Your task to perform on an android device: Open Chrome and go to settings Image 0: 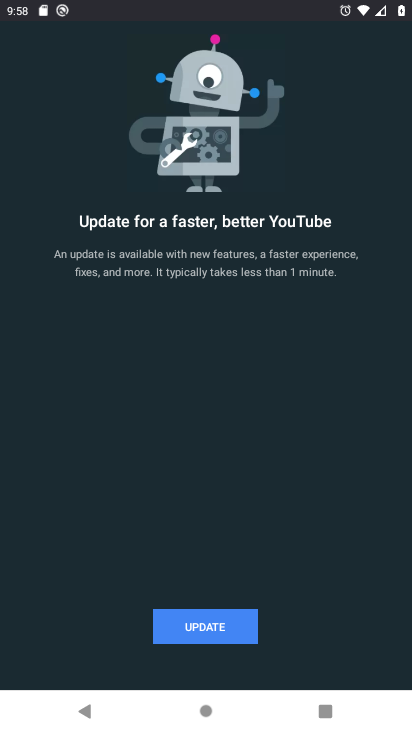
Step 0: click (222, 611)
Your task to perform on an android device: Open Chrome and go to settings Image 1: 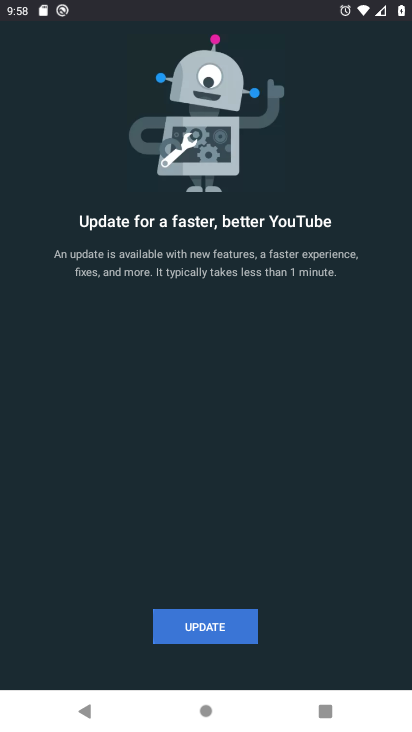
Step 1: click (214, 623)
Your task to perform on an android device: Open Chrome and go to settings Image 2: 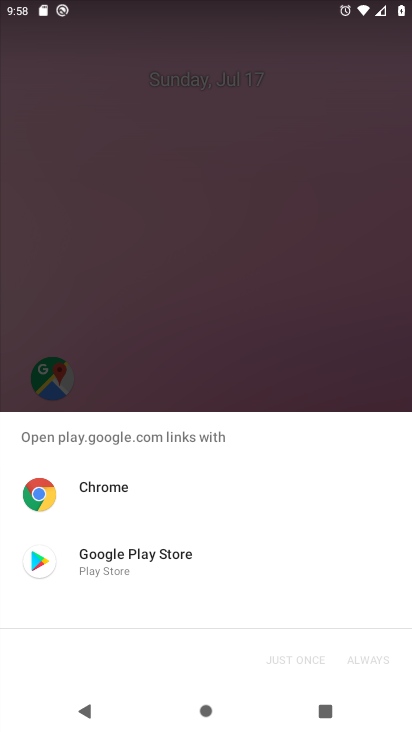
Step 2: click (103, 487)
Your task to perform on an android device: Open Chrome and go to settings Image 3: 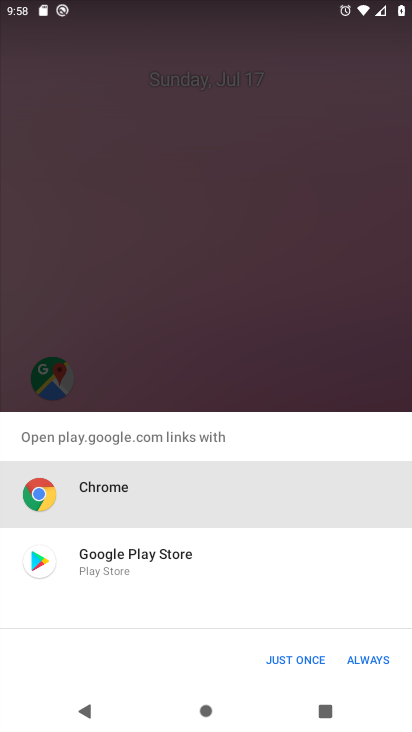
Step 3: click (144, 244)
Your task to perform on an android device: Open Chrome and go to settings Image 4: 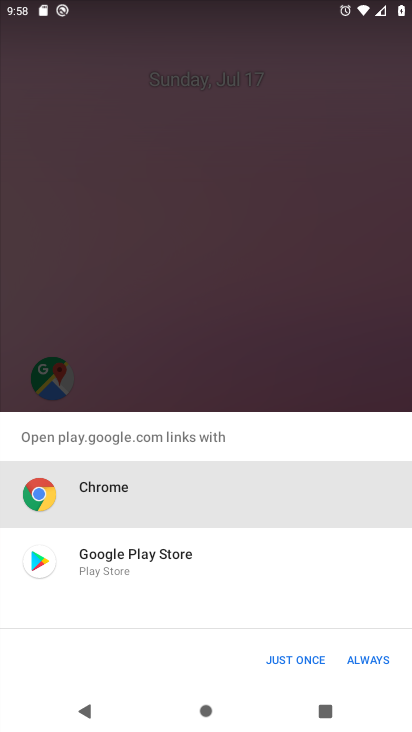
Step 4: click (144, 244)
Your task to perform on an android device: Open Chrome and go to settings Image 5: 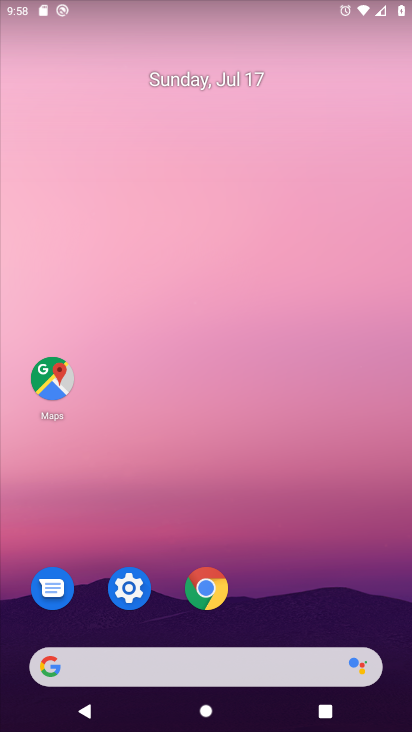
Step 5: click (145, 244)
Your task to perform on an android device: Open Chrome and go to settings Image 6: 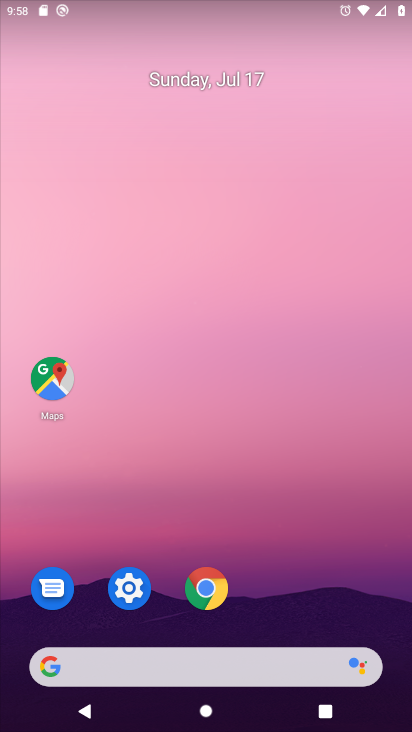
Step 6: drag from (221, 643) to (183, 123)
Your task to perform on an android device: Open Chrome and go to settings Image 7: 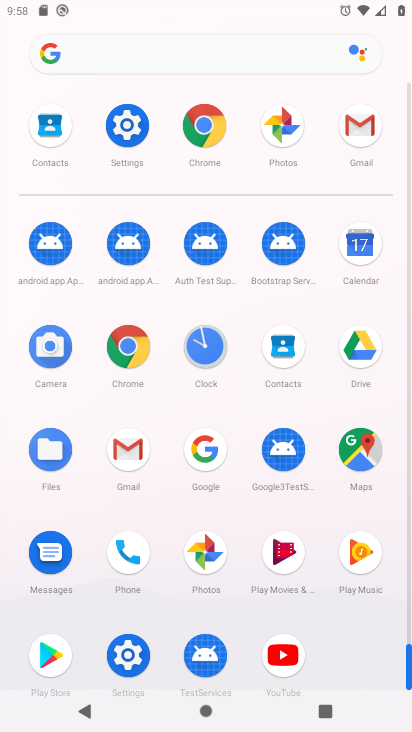
Step 7: click (349, 252)
Your task to perform on an android device: Open Chrome and go to settings Image 8: 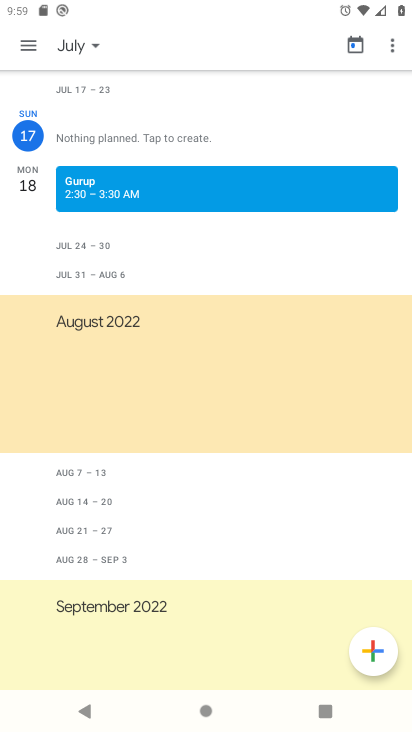
Step 8: press back button
Your task to perform on an android device: Open Chrome and go to settings Image 9: 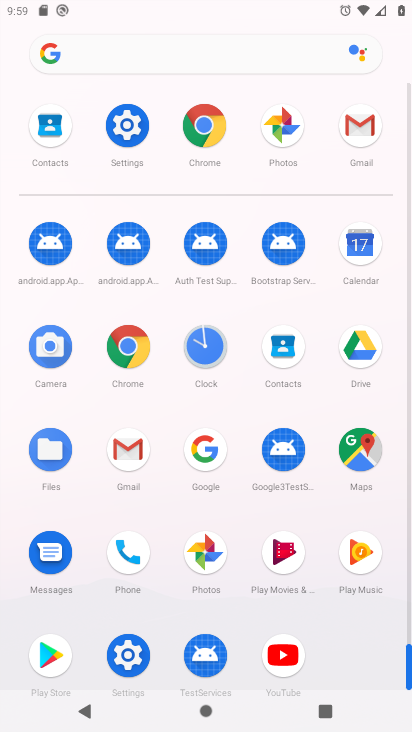
Step 9: press back button
Your task to perform on an android device: Open Chrome and go to settings Image 10: 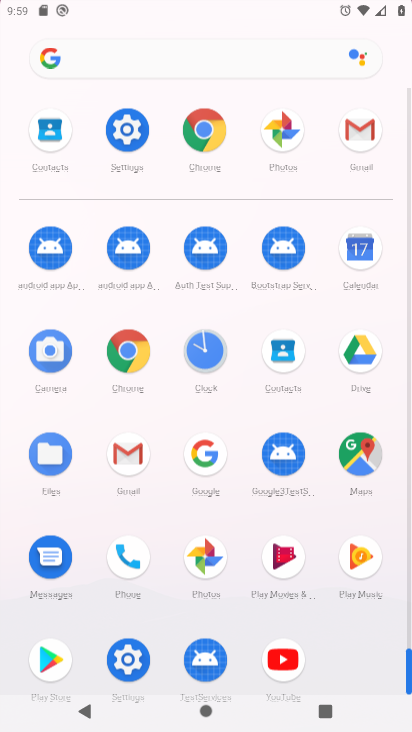
Step 10: press back button
Your task to perform on an android device: Open Chrome and go to settings Image 11: 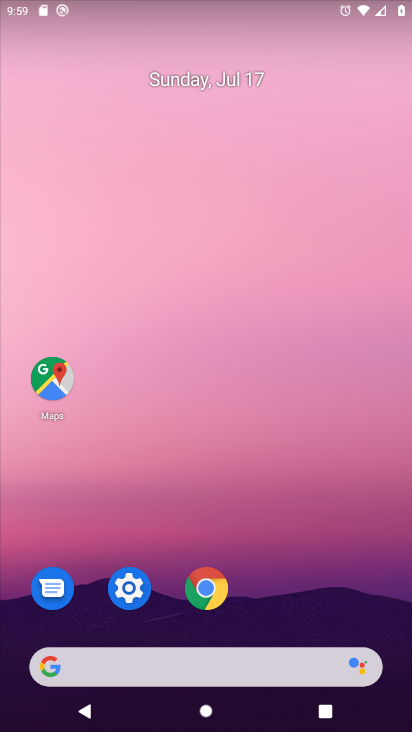
Step 11: drag from (256, 561) to (209, 95)
Your task to perform on an android device: Open Chrome and go to settings Image 12: 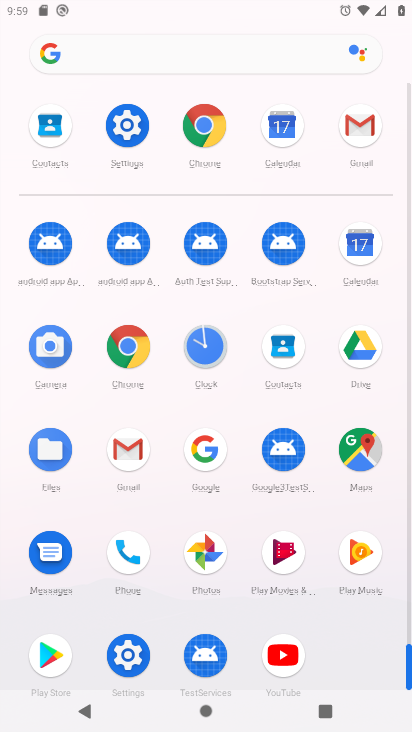
Step 12: drag from (190, 572) to (127, 54)
Your task to perform on an android device: Open Chrome and go to settings Image 13: 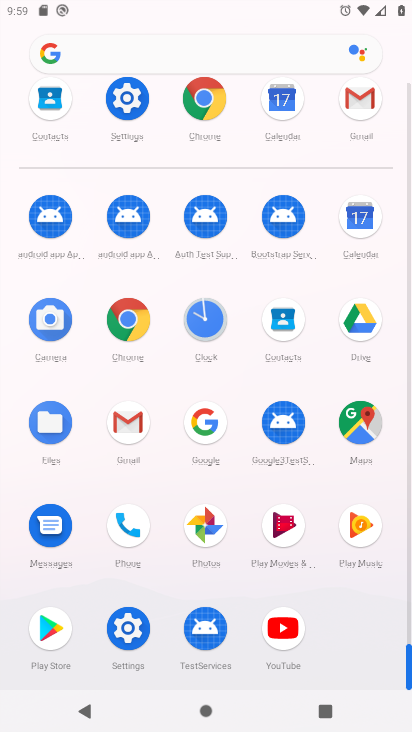
Step 13: drag from (91, 630) to (137, 645)
Your task to perform on an android device: Open Chrome and go to settings Image 14: 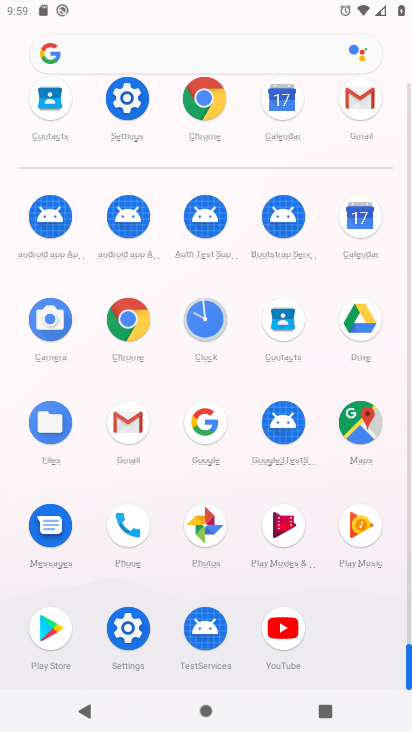
Step 14: click (139, 632)
Your task to perform on an android device: Open Chrome and go to settings Image 15: 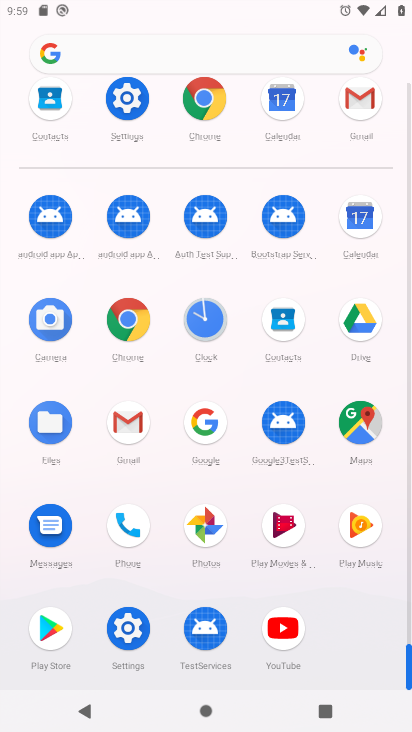
Step 15: click (138, 632)
Your task to perform on an android device: Open Chrome and go to settings Image 16: 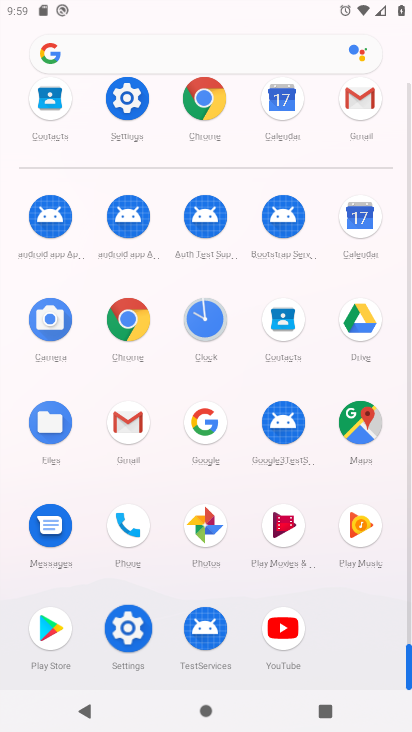
Step 16: click (138, 632)
Your task to perform on an android device: Open Chrome and go to settings Image 17: 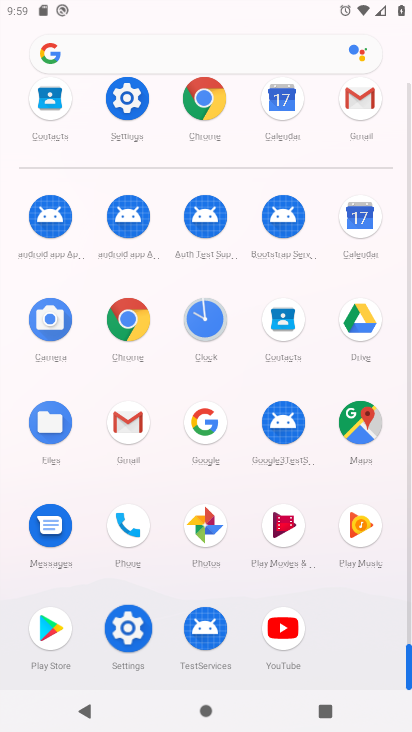
Step 17: click (139, 628)
Your task to perform on an android device: Open Chrome and go to settings Image 18: 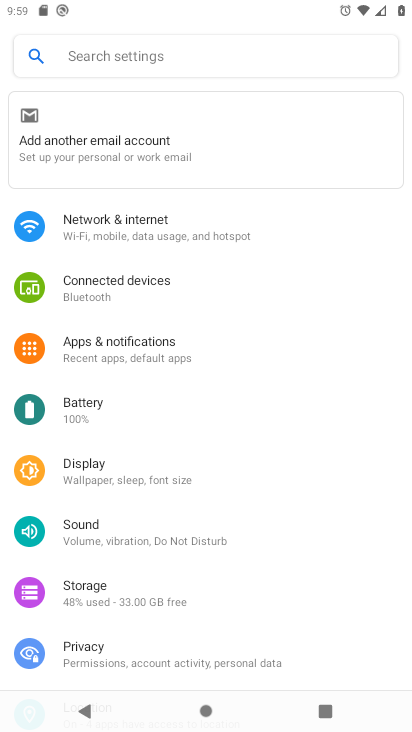
Step 18: press back button
Your task to perform on an android device: Open Chrome and go to settings Image 19: 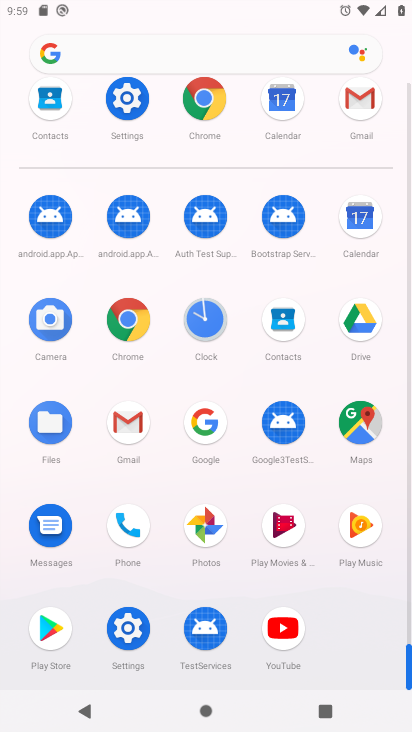
Step 19: click (121, 330)
Your task to perform on an android device: Open Chrome and go to settings Image 20: 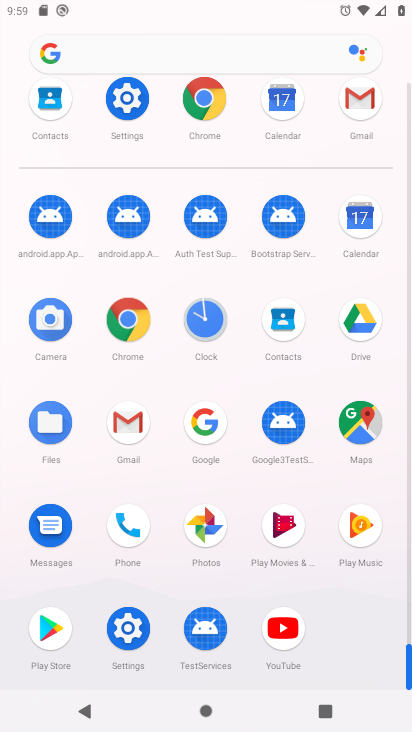
Step 20: click (120, 330)
Your task to perform on an android device: Open Chrome and go to settings Image 21: 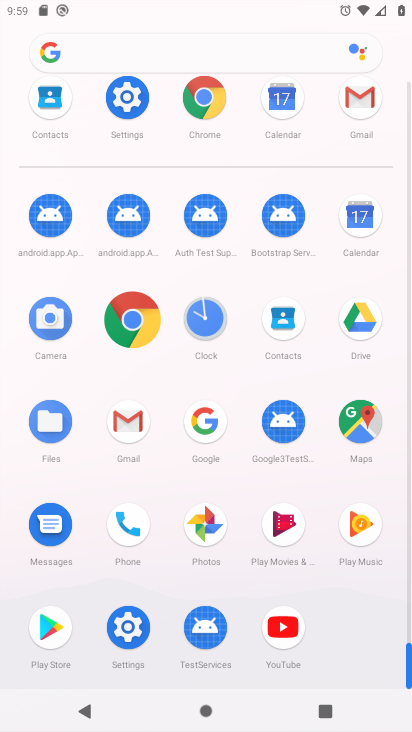
Step 21: click (119, 331)
Your task to perform on an android device: Open Chrome and go to settings Image 22: 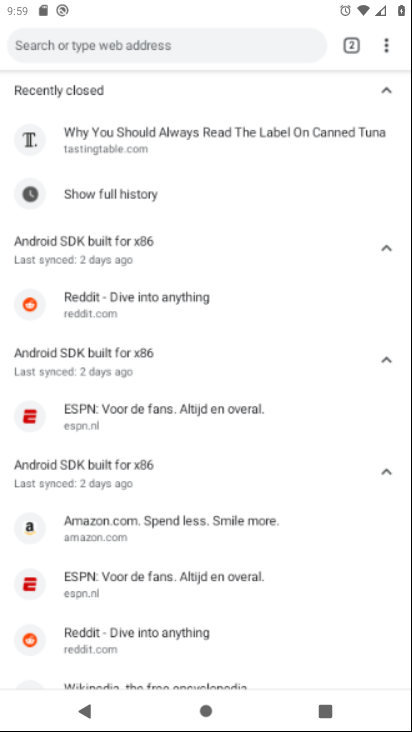
Step 22: click (130, 308)
Your task to perform on an android device: Open Chrome and go to settings Image 23: 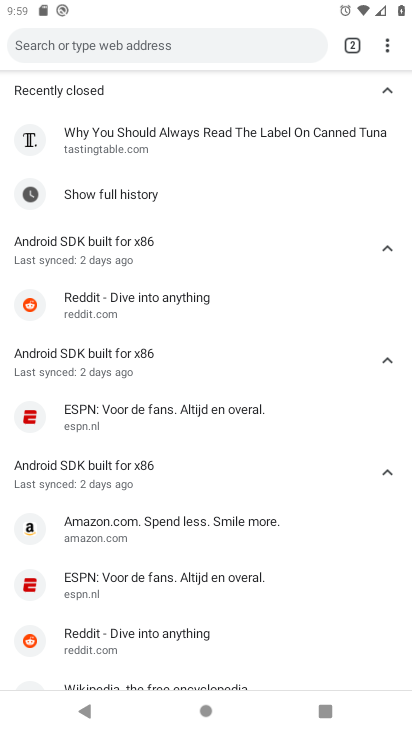
Step 23: press back button
Your task to perform on an android device: Open Chrome and go to settings Image 24: 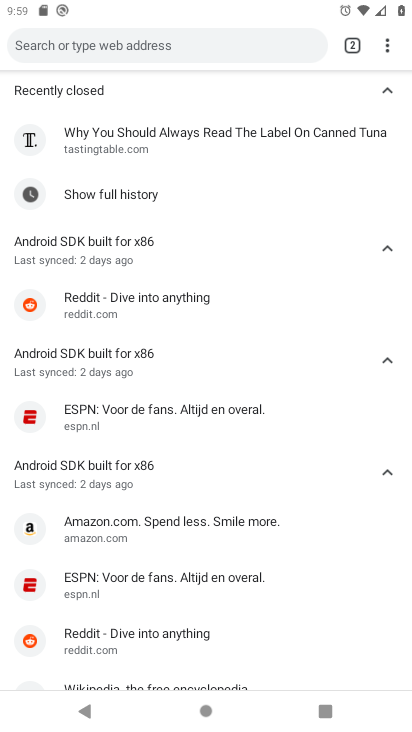
Step 24: press back button
Your task to perform on an android device: Open Chrome and go to settings Image 25: 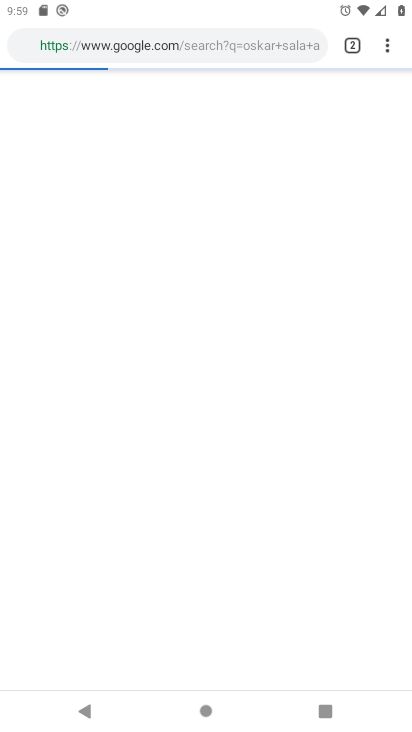
Step 25: press back button
Your task to perform on an android device: Open Chrome and go to settings Image 26: 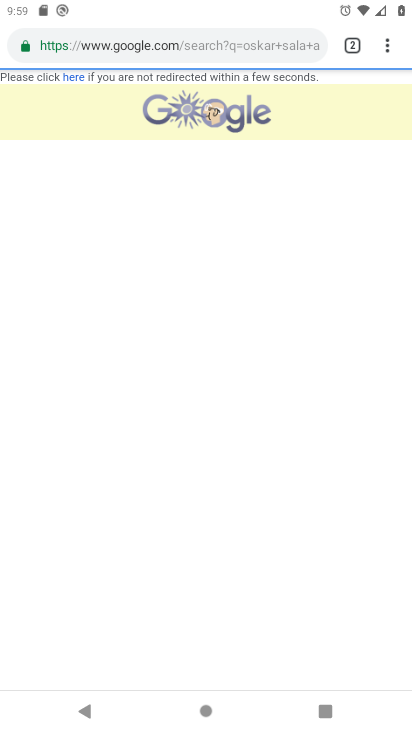
Step 26: press back button
Your task to perform on an android device: Open Chrome and go to settings Image 27: 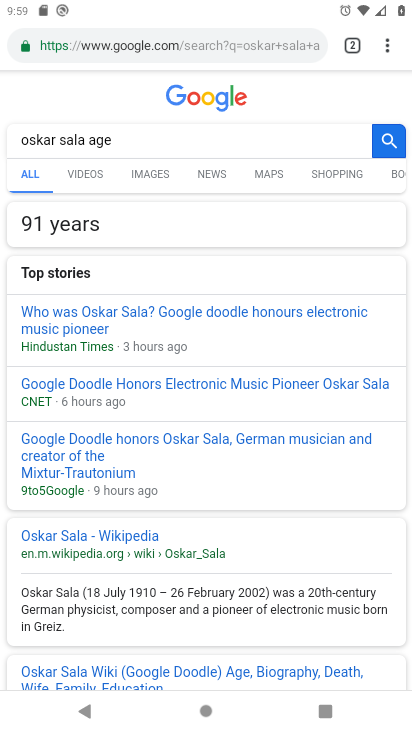
Step 27: click (390, 45)
Your task to perform on an android device: Open Chrome and go to settings Image 28: 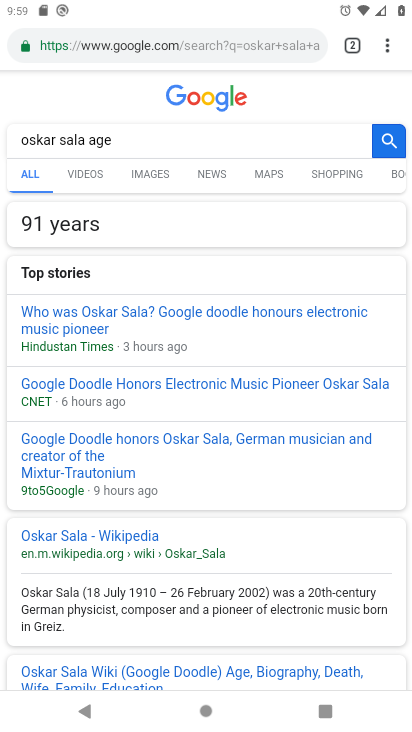
Step 28: click (389, 47)
Your task to perform on an android device: Open Chrome and go to settings Image 29: 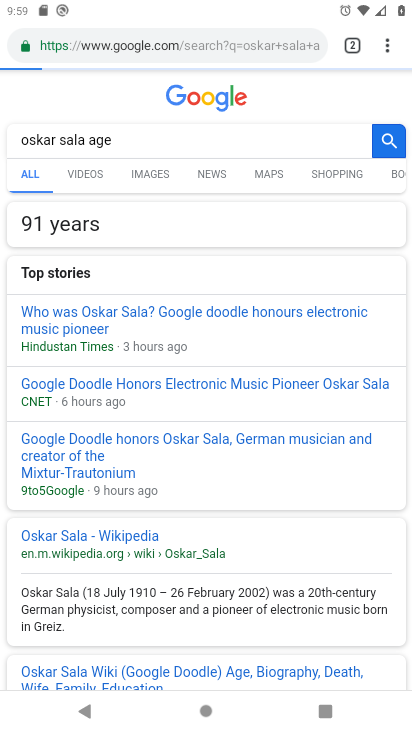
Step 29: click (401, 49)
Your task to perform on an android device: Open Chrome and go to settings Image 30: 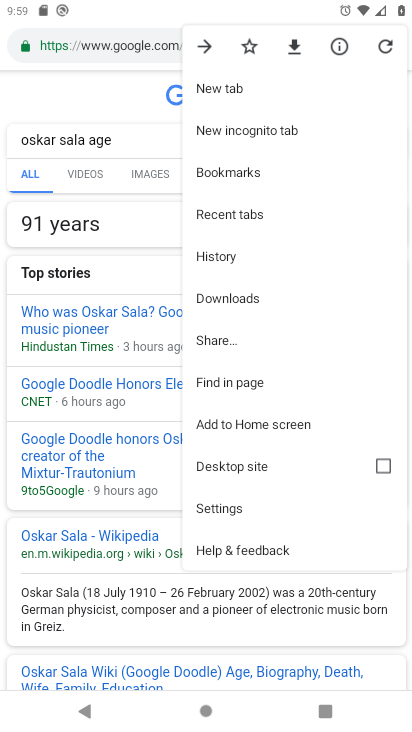
Step 30: click (216, 513)
Your task to perform on an android device: Open Chrome and go to settings Image 31: 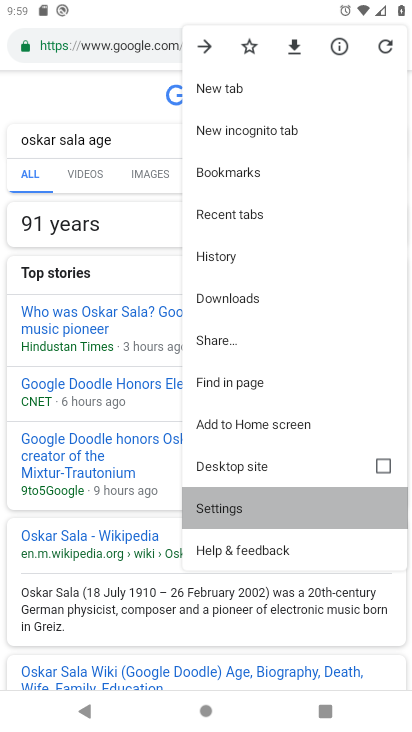
Step 31: click (218, 515)
Your task to perform on an android device: Open Chrome and go to settings Image 32: 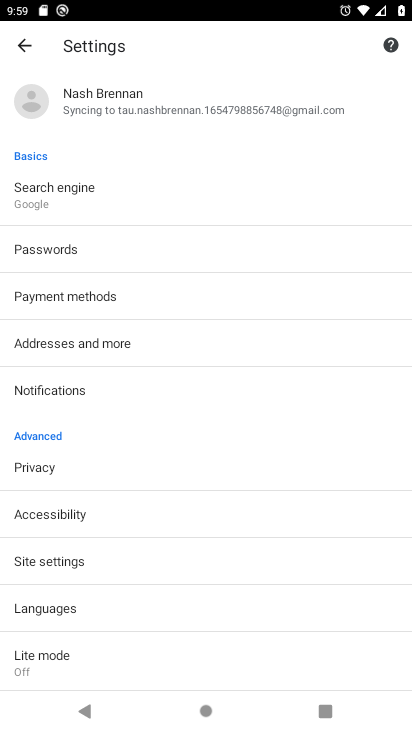
Step 32: click (52, 552)
Your task to perform on an android device: Open Chrome and go to settings Image 33: 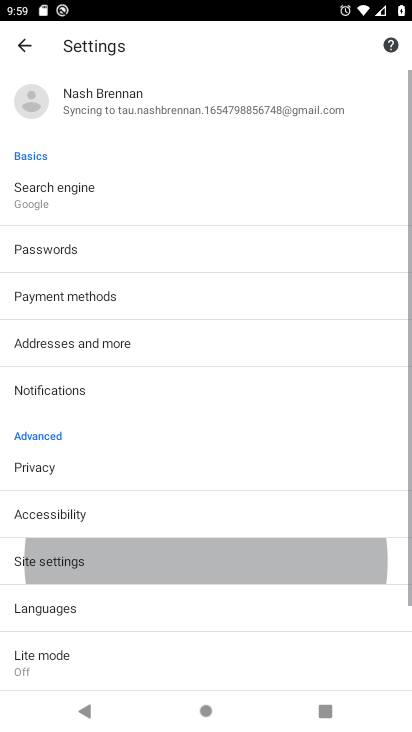
Step 33: click (51, 558)
Your task to perform on an android device: Open Chrome and go to settings Image 34: 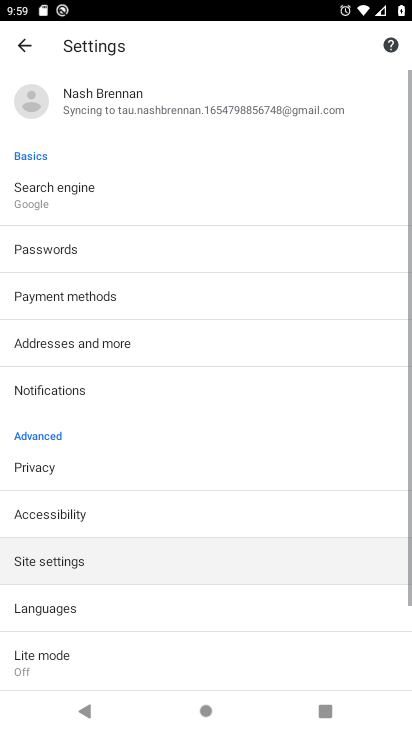
Step 34: click (52, 559)
Your task to perform on an android device: Open Chrome and go to settings Image 35: 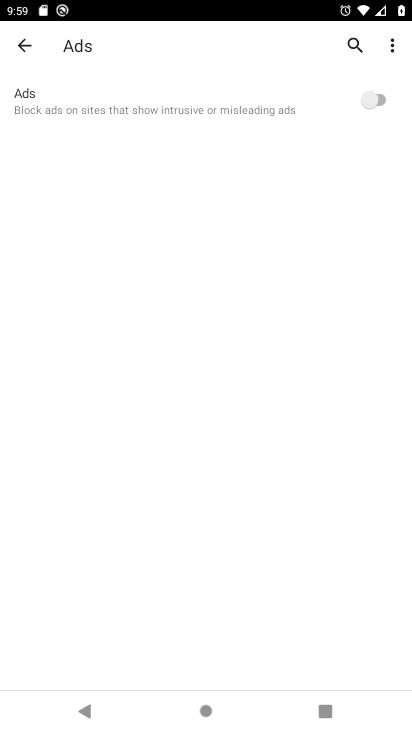
Step 35: task complete